Your task to perform on an android device: Go to Yahoo.com Image 0: 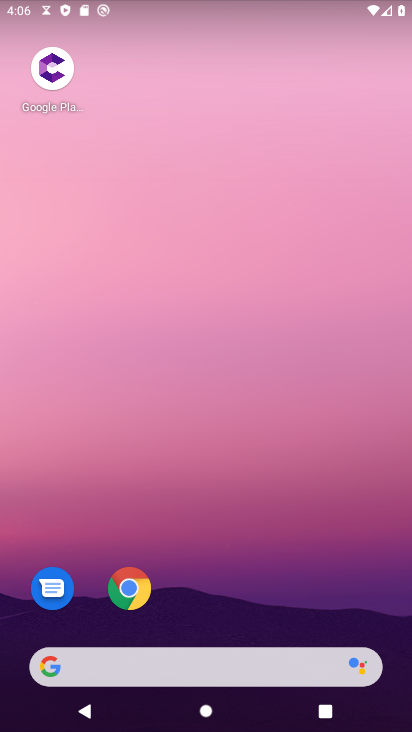
Step 0: click (93, 667)
Your task to perform on an android device: Go to Yahoo.com Image 1: 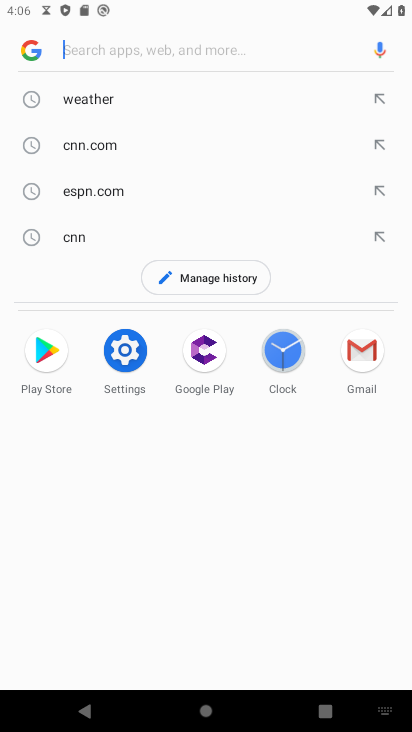
Step 1: type "Yahoo.com"
Your task to perform on an android device: Go to Yahoo.com Image 2: 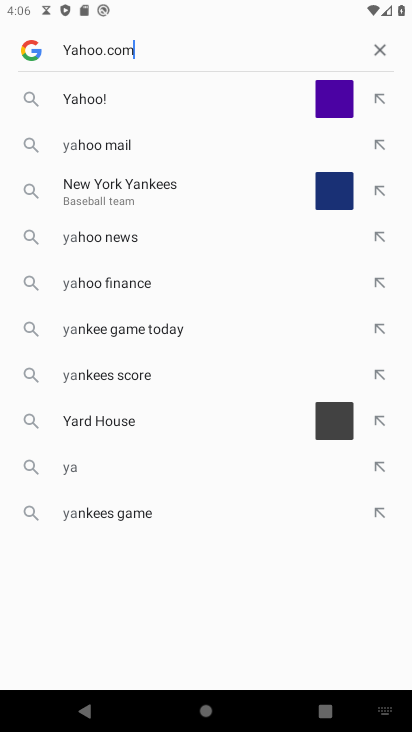
Step 2: type ""
Your task to perform on an android device: Go to Yahoo.com Image 3: 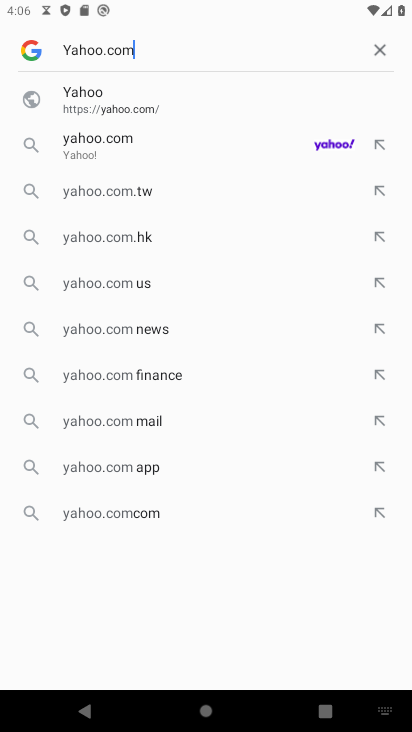
Step 3: click (82, 100)
Your task to perform on an android device: Go to Yahoo.com Image 4: 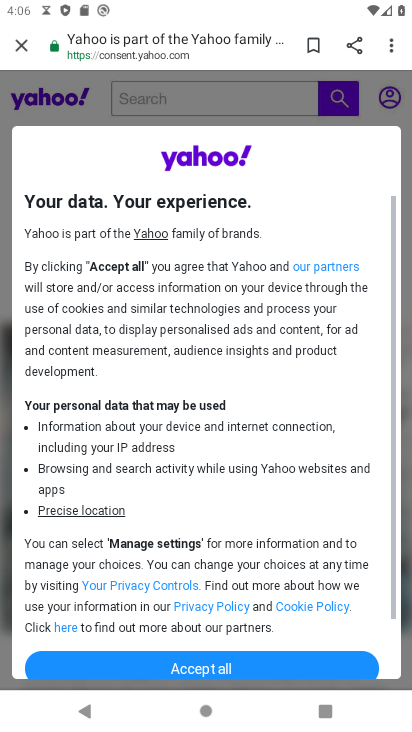
Step 4: task complete